Your task to perform on an android device: Add "duracell triple a" to the cart on target, then select checkout. Image 0: 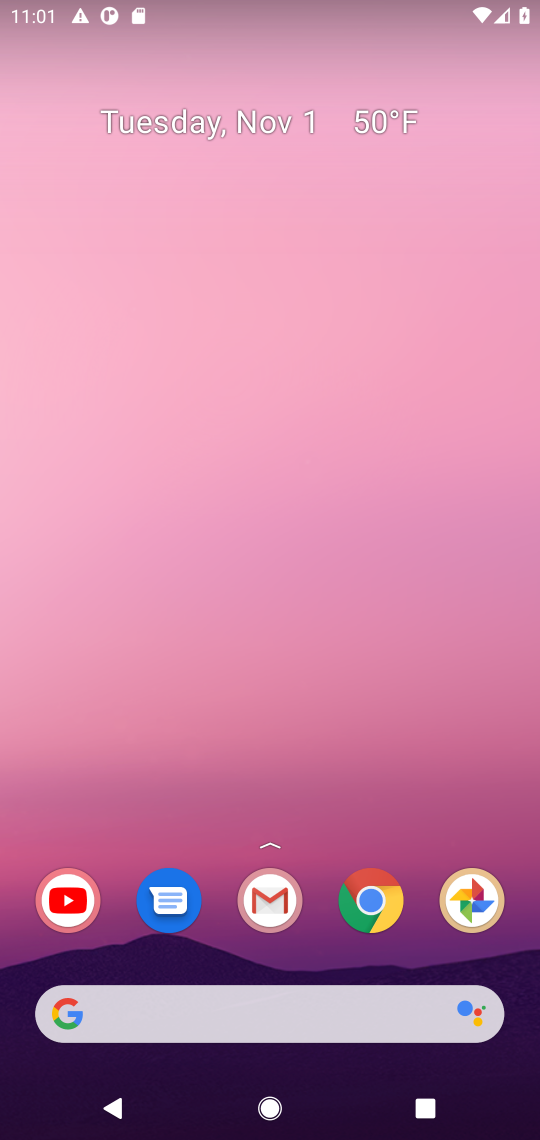
Step 0: click (390, 911)
Your task to perform on an android device: Add "duracell triple a" to the cart on target, then select checkout. Image 1: 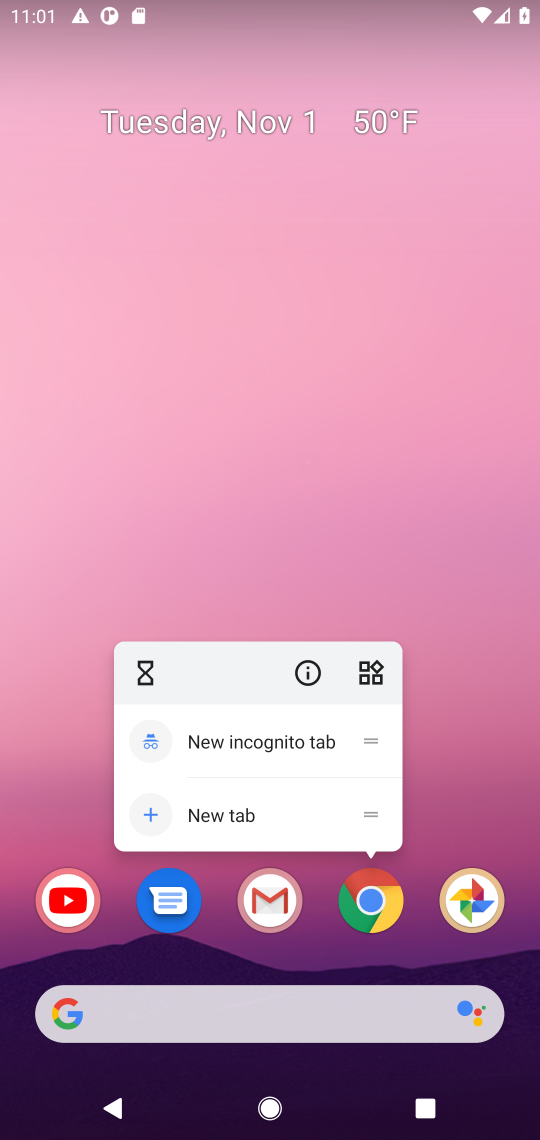
Step 1: click (359, 915)
Your task to perform on an android device: Add "duracell triple a" to the cart on target, then select checkout. Image 2: 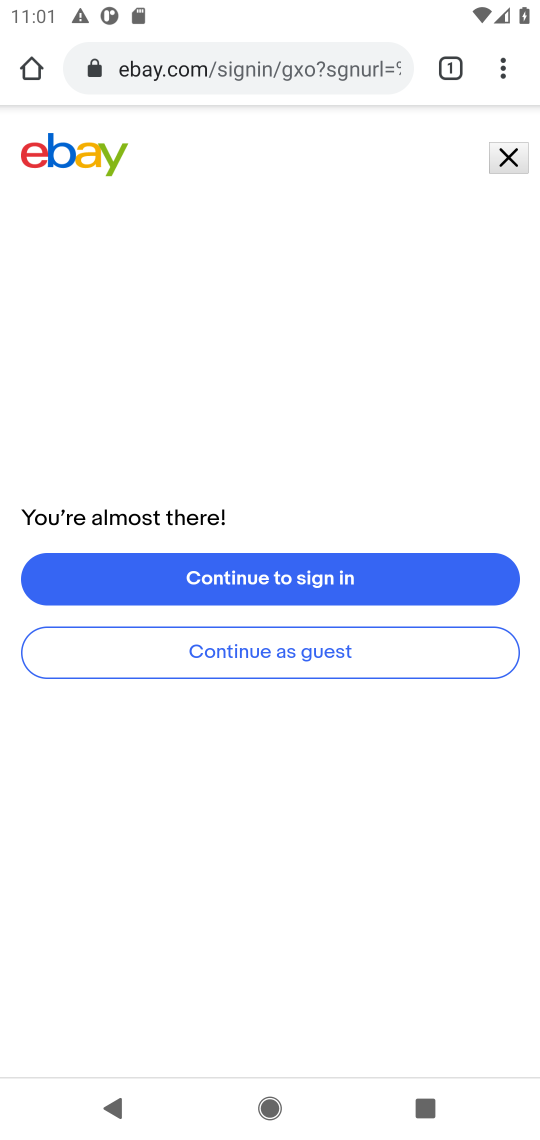
Step 2: click (375, 897)
Your task to perform on an android device: Add "duracell triple a" to the cart on target, then select checkout. Image 3: 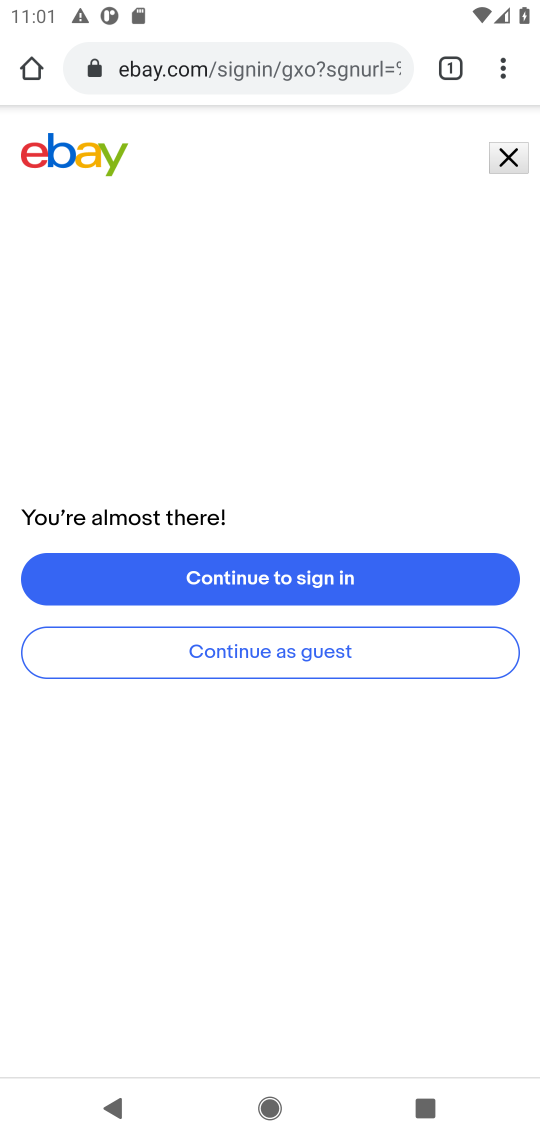
Step 3: click (264, 62)
Your task to perform on an android device: Add "duracell triple a" to the cart on target, then select checkout. Image 4: 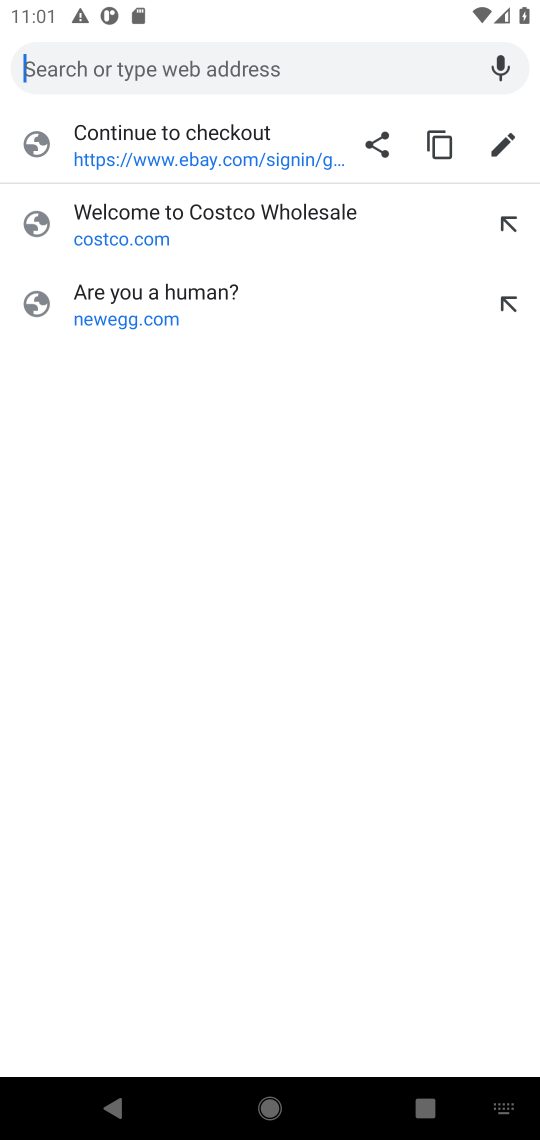
Step 4: type "target"
Your task to perform on an android device: Add "duracell triple a" to the cart on target, then select checkout. Image 5: 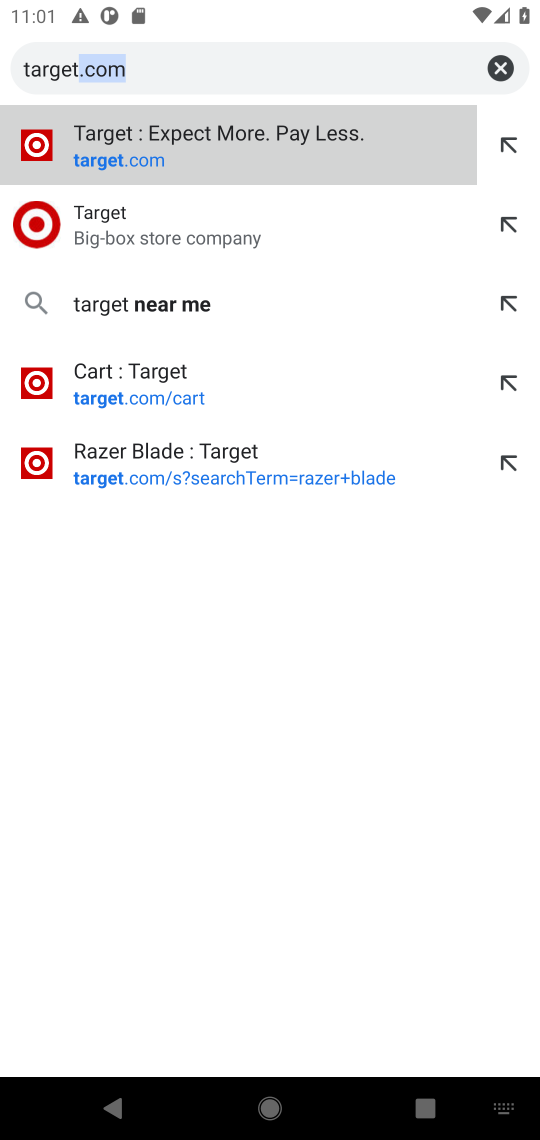
Step 5: type ""
Your task to perform on an android device: Add "duracell triple a" to the cart on target, then select checkout. Image 6: 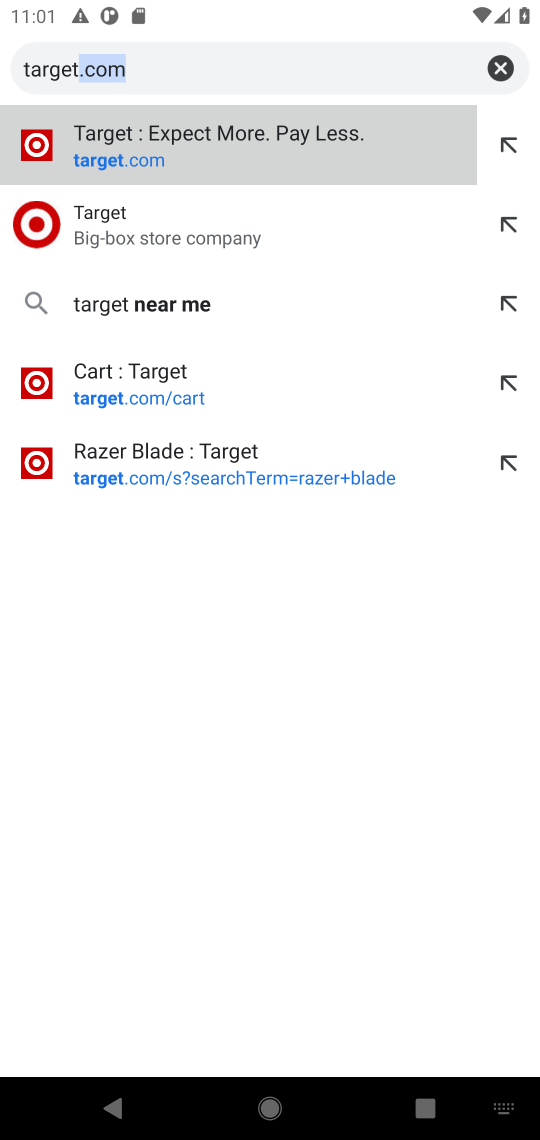
Step 6: click (205, 229)
Your task to perform on an android device: Add "duracell triple a" to the cart on target, then select checkout. Image 7: 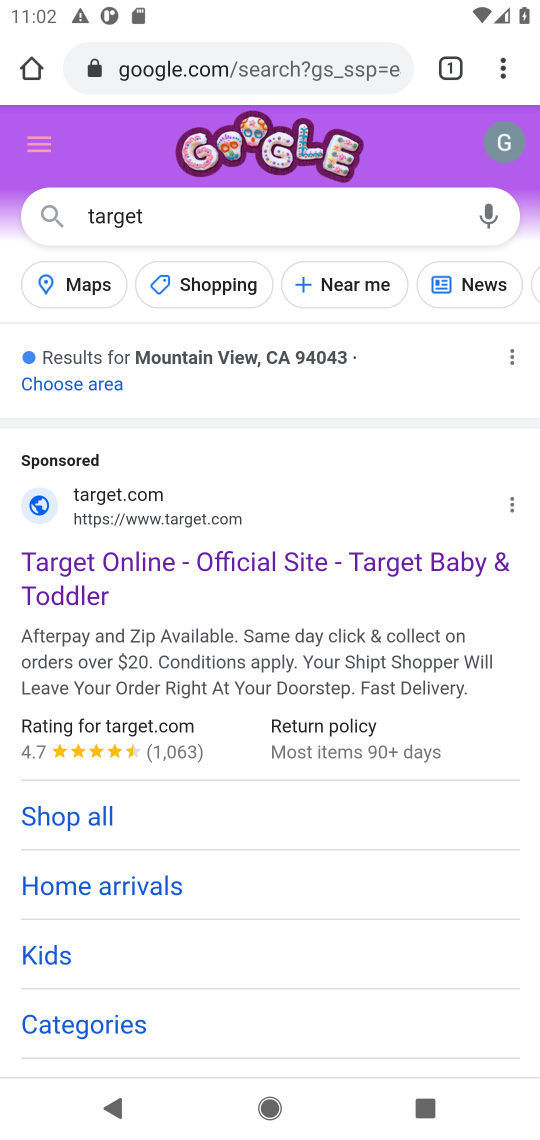
Step 7: click (222, 581)
Your task to perform on an android device: Add "duracell triple a" to the cart on target, then select checkout. Image 8: 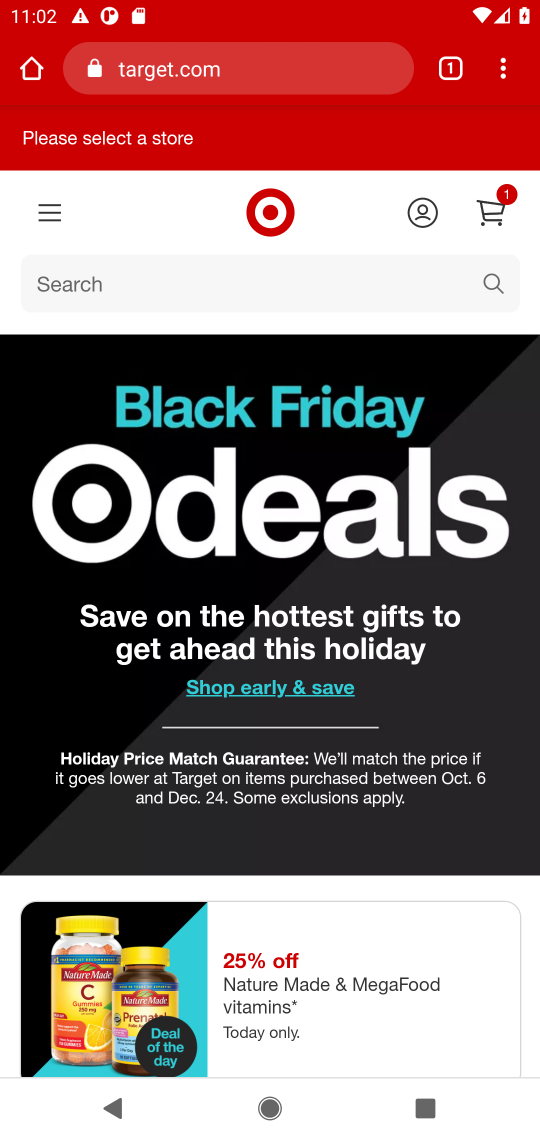
Step 8: click (442, 285)
Your task to perform on an android device: Add "duracell triple a" to the cart on target, then select checkout. Image 9: 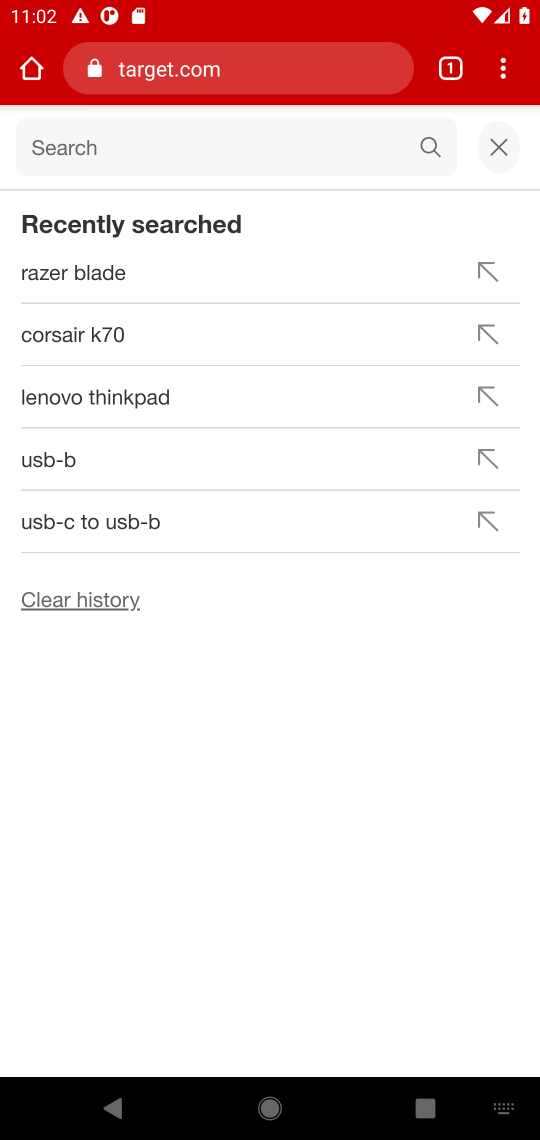
Step 9: type "duracell triple a"
Your task to perform on an android device: Add "duracell triple a" to the cart on target, then select checkout. Image 10: 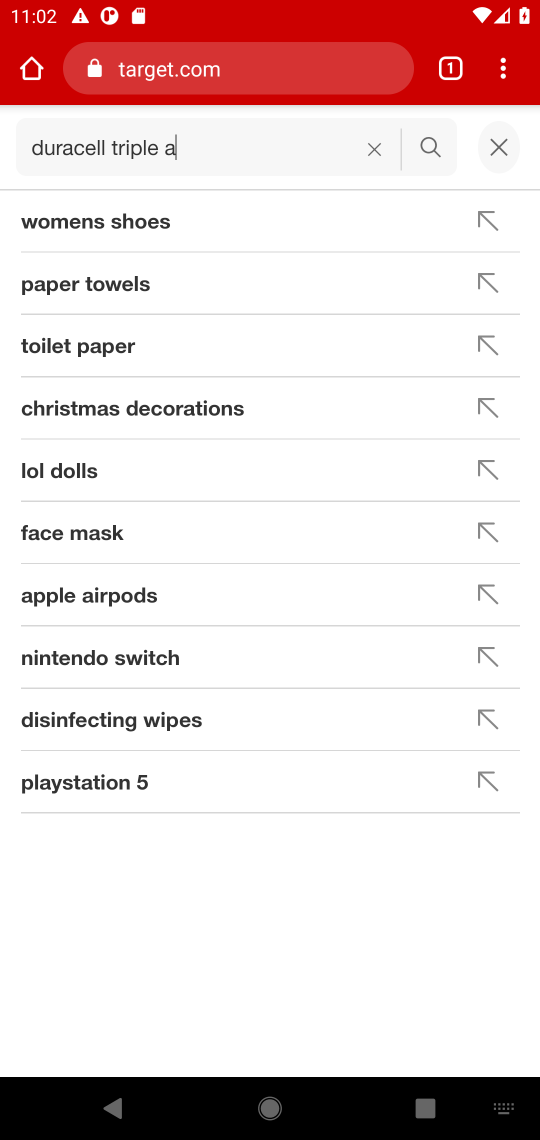
Step 10: type ""
Your task to perform on an android device: Add "duracell triple a" to the cart on target, then select checkout. Image 11: 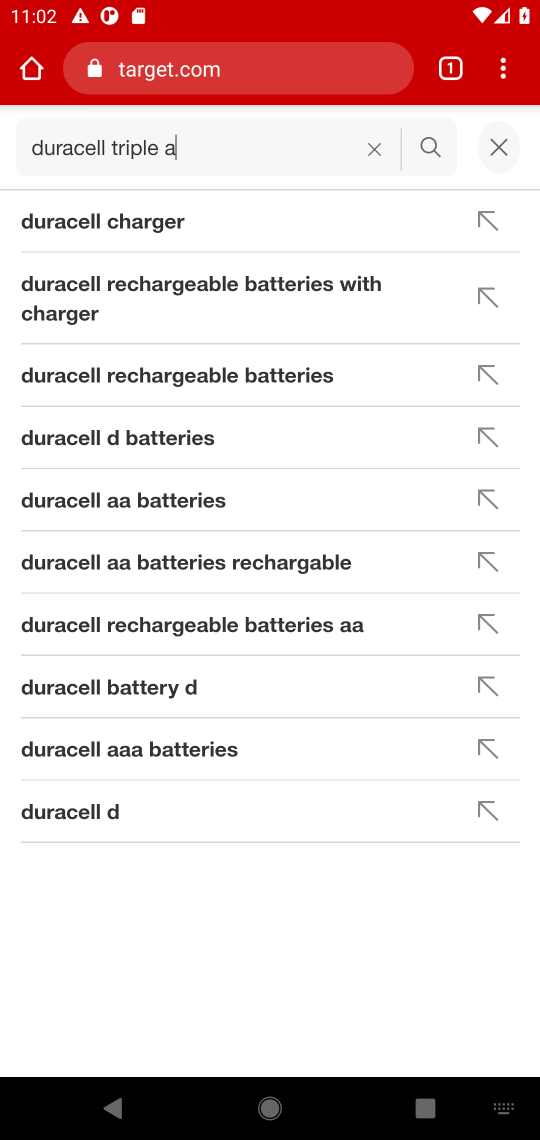
Step 11: click (423, 134)
Your task to perform on an android device: Add "duracell triple a" to the cart on target, then select checkout. Image 12: 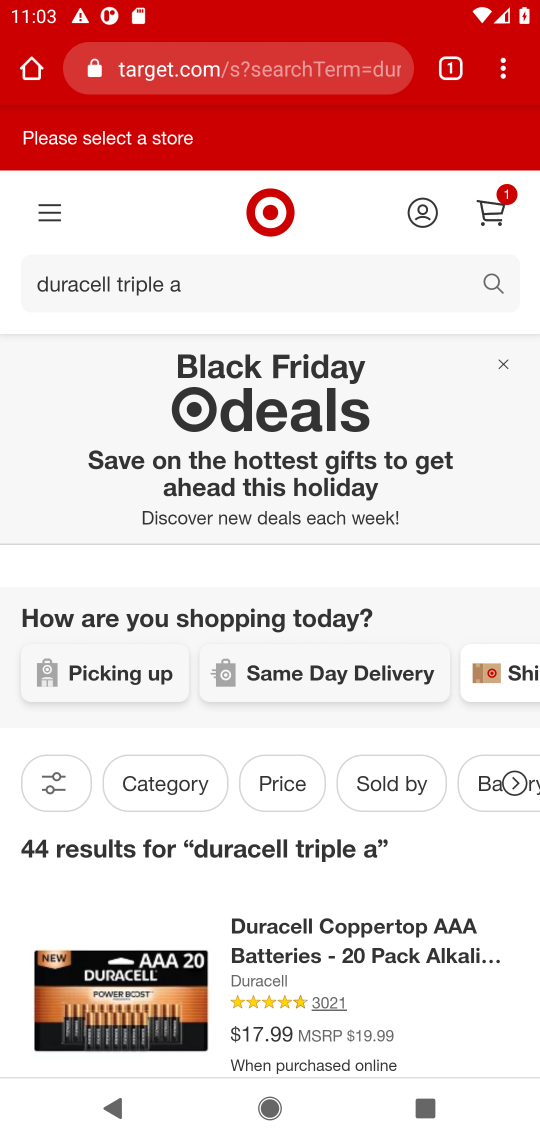
Step 12: click (253, 958)
Your task to perform on an android device: Add "duracell triple a" to the cart on target, then select checkout. Image 13: 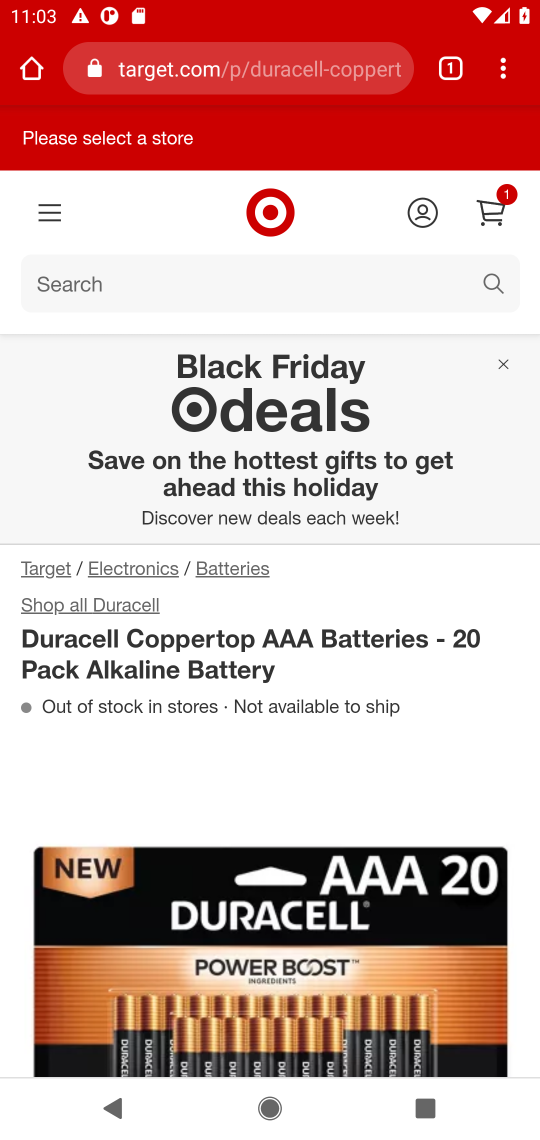
Step 13: drag from (255, 779) to (291, 151)
Your task to perform on an android device: Add "duracell triple a" to the cart on target, then select checkout. Image 14: 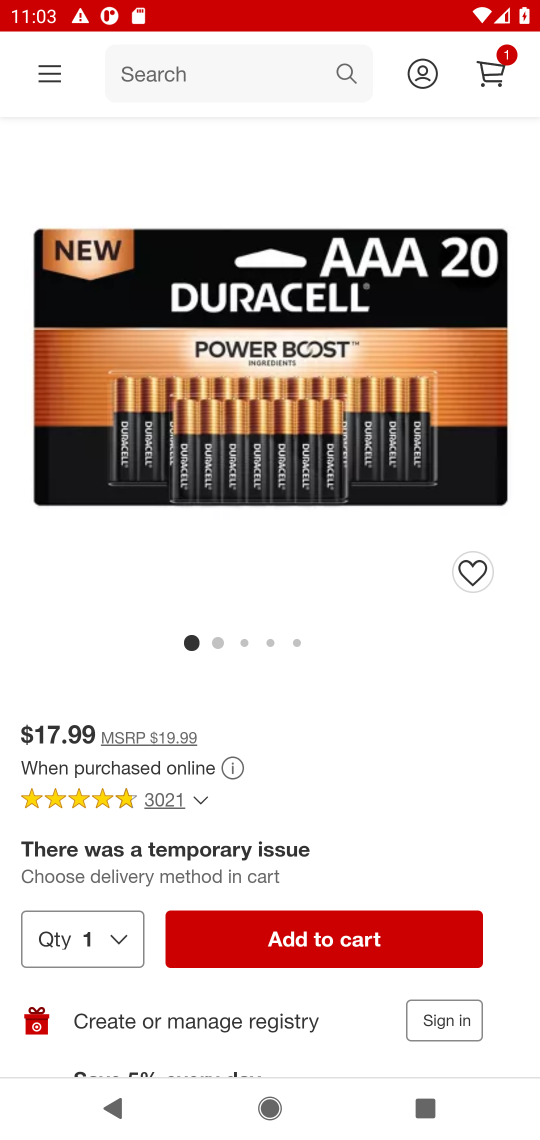
Step 14: drag from (249, 1049) to (317, 544)
Your task to perform on an android device: Add "duracell triple a" to the cart on target, then select checkout. Image 15: 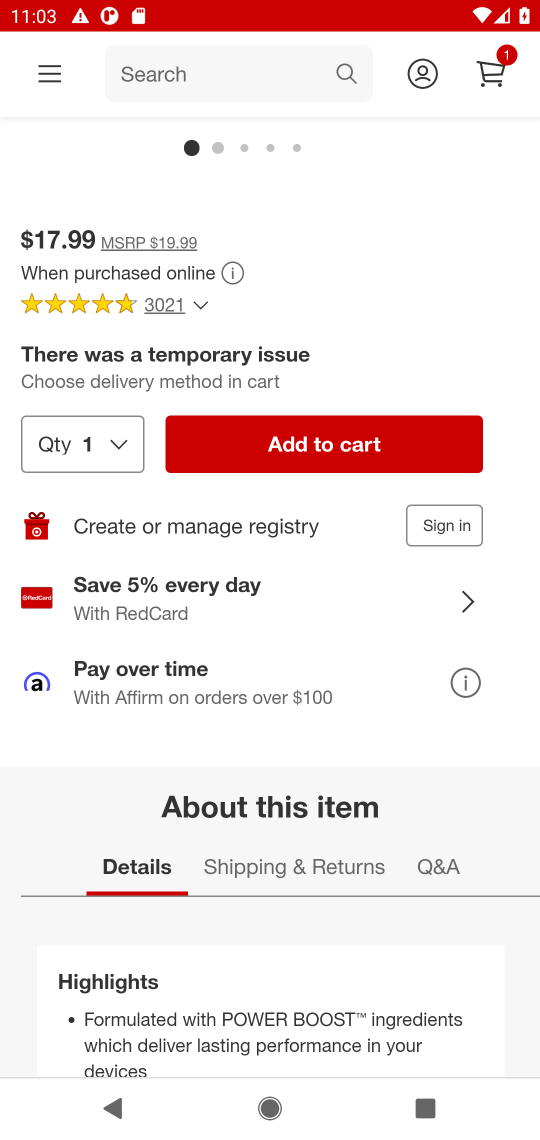
Step 15: drag from (270, 776) to (321, 619)
Your task to perform on an android device: Add "duracell triple a" to the cart on target, then select checkout. Image 16: 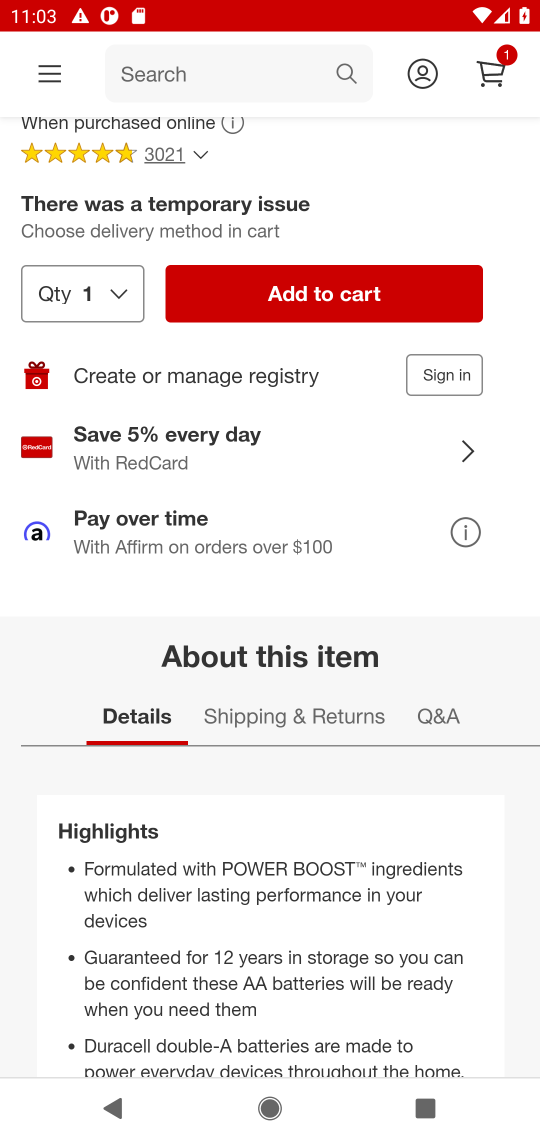
Step 16: click (342, 299)
Your task to perform on an android device: Add "duracell triple a" to the cart on target, then select checkout. Image 17: 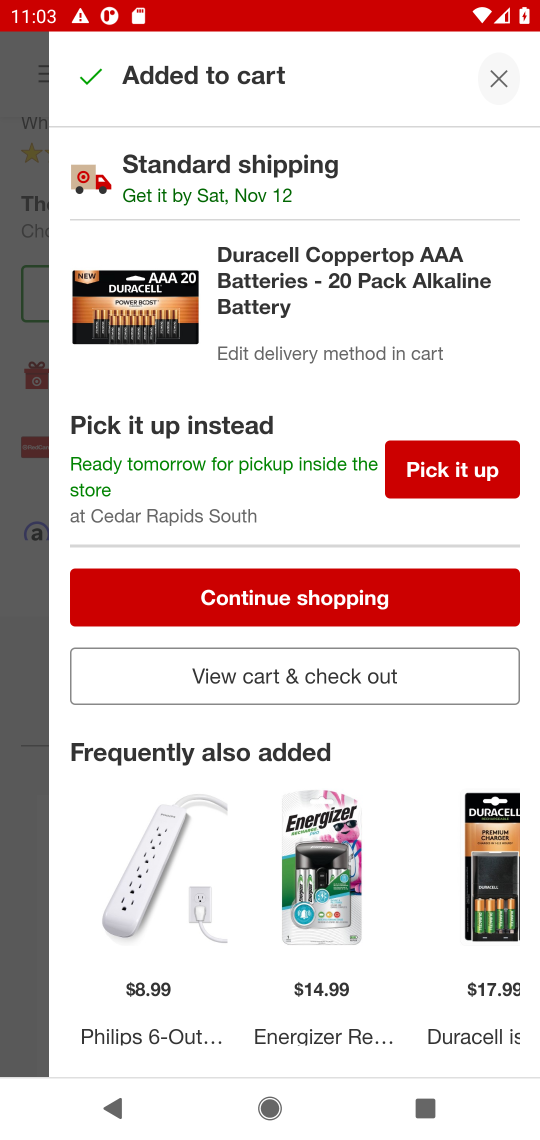
Step 17: click (496, 82)
Your task to perform on an android device: Add "duracell triple a" to the cart on target, then select checkout. Image 18: 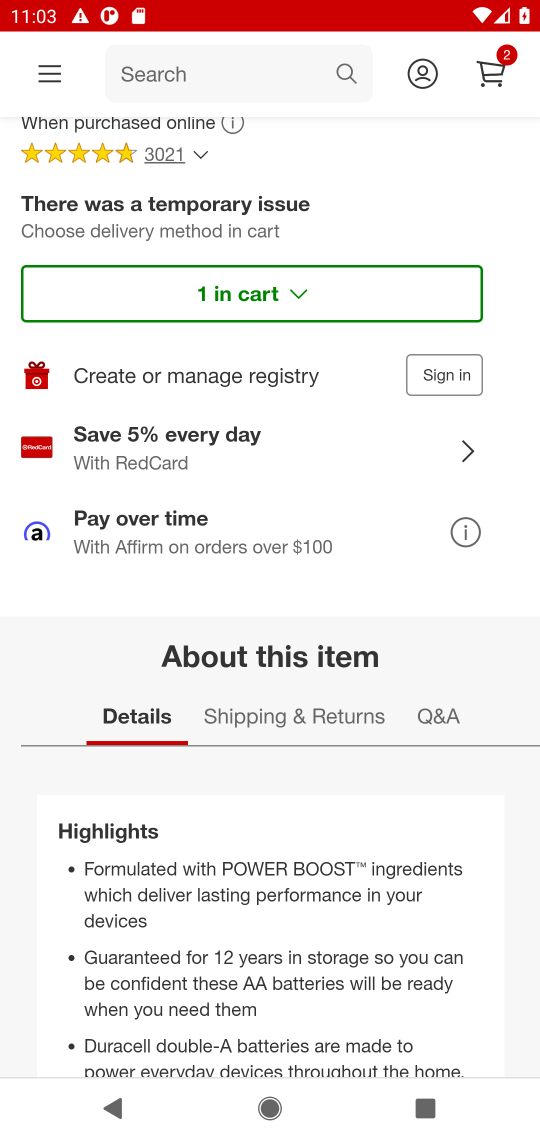
Step 18: click (496, 82)
Your task to perform on an android device: Add "duracell triple a" to the cart on target, then select checkout. Image 19: 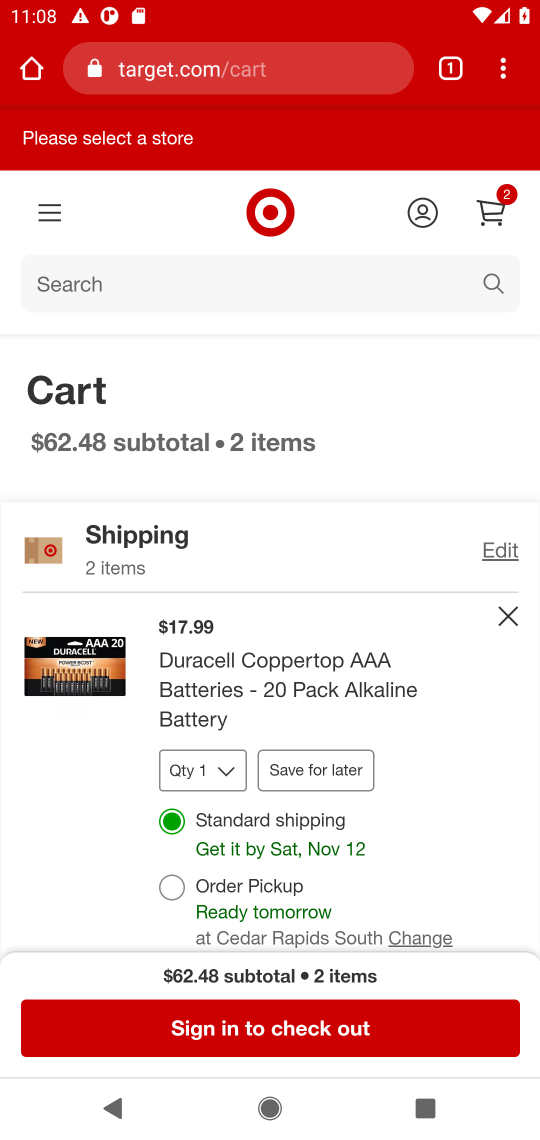
Step 19: task complete